Your task to perform on an android device: Open ESPN.com Image 0: 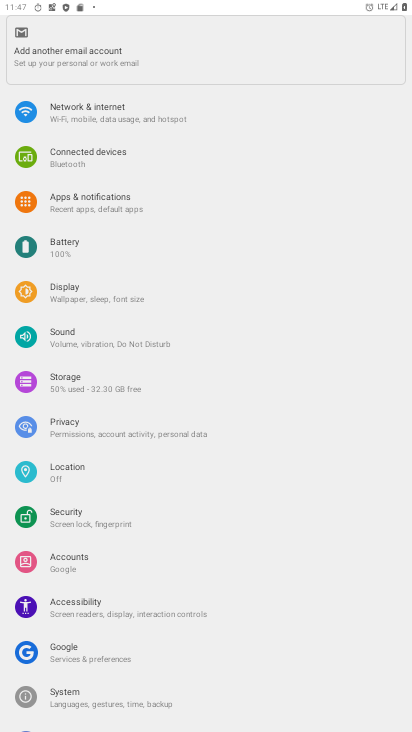
Step 0: press home button
Your task to perform on an android device: Open ESPN.com Image 1: 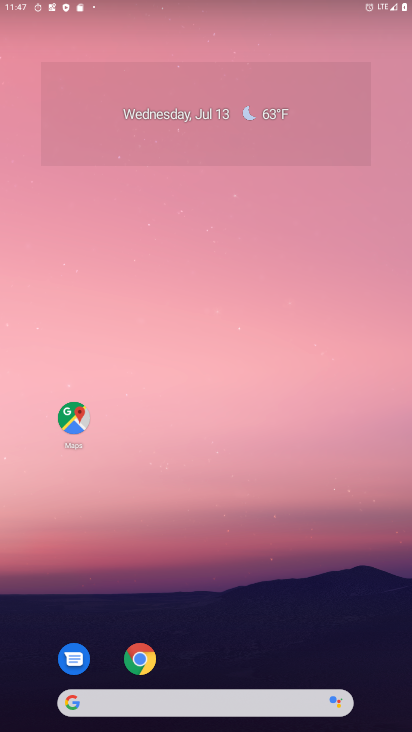
Step 1: drag from (262, 623) to (252, 143)
Your task to perform on an android device: Open ESPN.com Image 2: 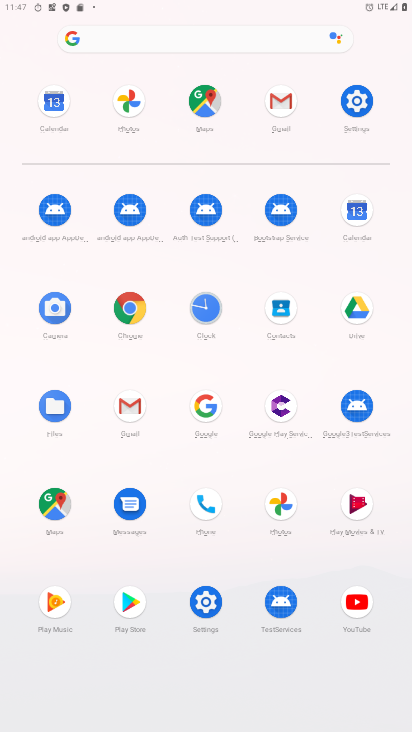
Step 2: click (131, 311)
Your task to perform on an android device: Open ESPN.com Image 3: 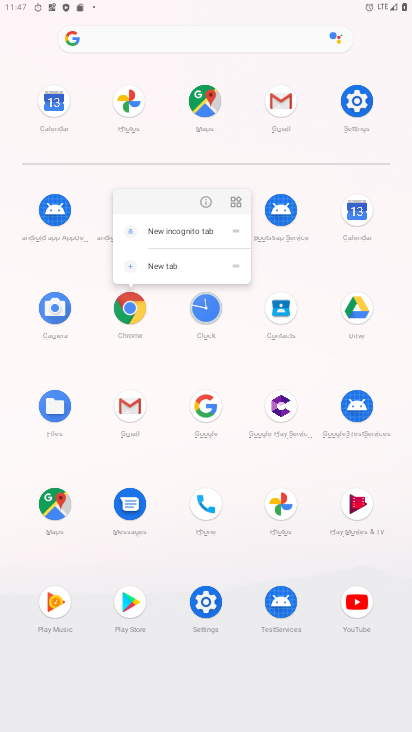
Step 3: click (129, 303)
Your task to perform on an android device: Open ESPN.com Image 4: 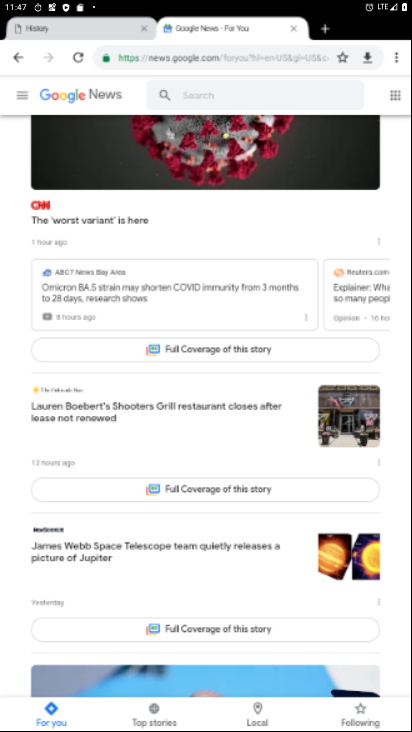
Step 4: click (169, 56)
Your task to perform on an android device: Open ESPN.com Image 5: 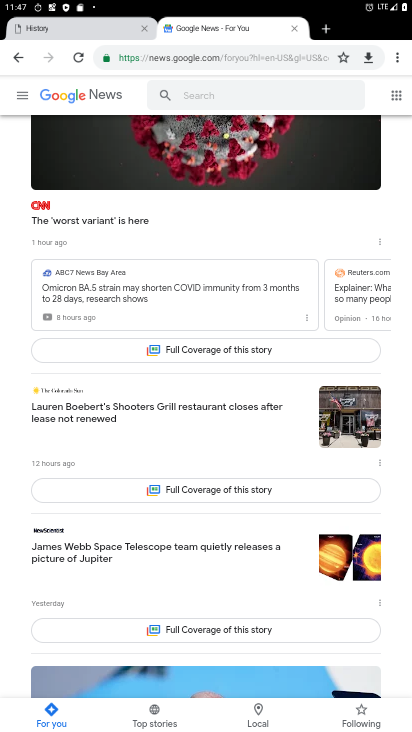
Step 5: click (262, 61)
Your task to perform on an android device: Open ESPN.com Image 6: 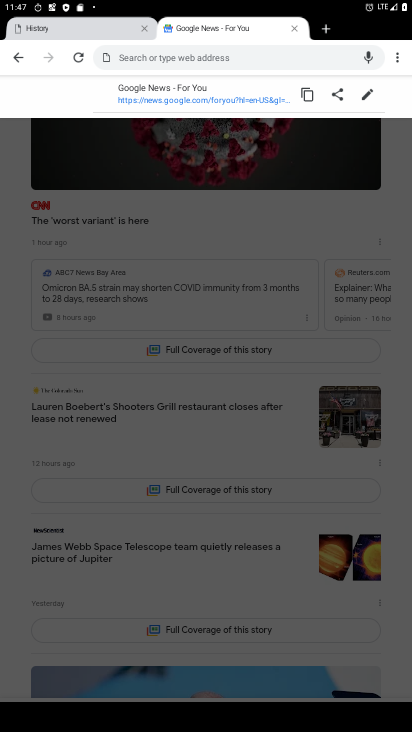
Step 6: type "espn.com"
Your task to perform on an android device: Open ESPN.com Image 7: 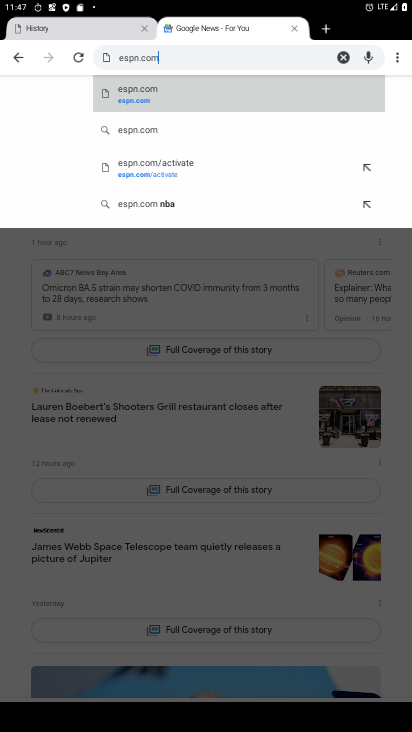
Step 7: click (151, 92)
Your task to perform on an android device: Open ESPN.com Image 8: 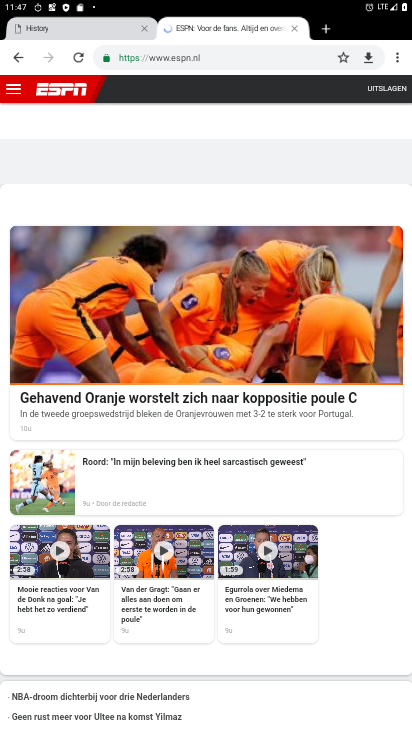
Step 8: task complete